Your task to perform on an android device: Empty the shopping cart on bestbuy. Image 0: 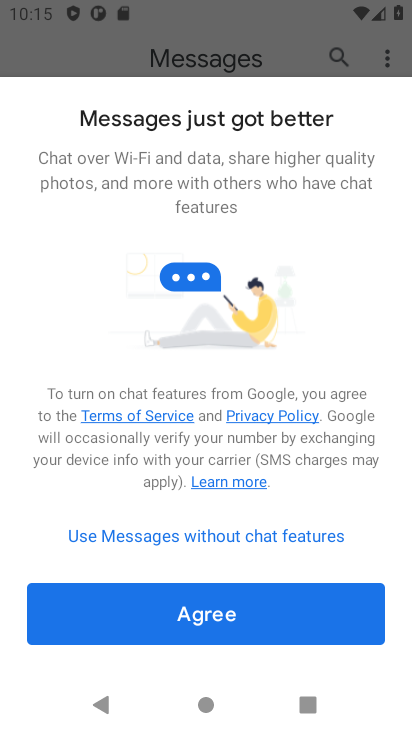
Step 0: press home button
Your task to perform on an android device: Empty the shopping cart on bestbuy. Image 1: 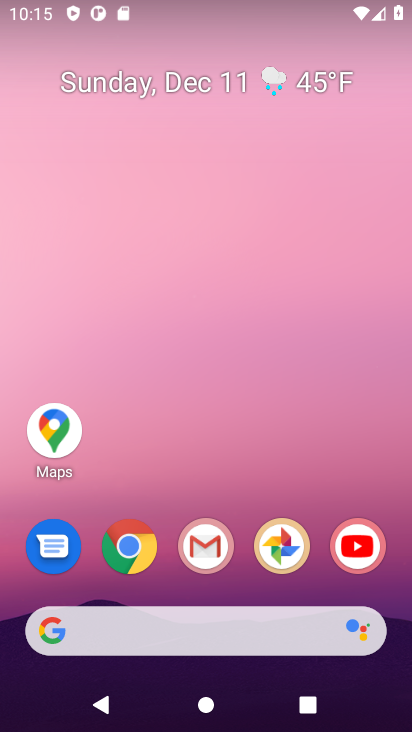
Step 1: click (126, 547)
Your task to perform on an android device: Empty the shopping cart on bestbuy. Image 2: 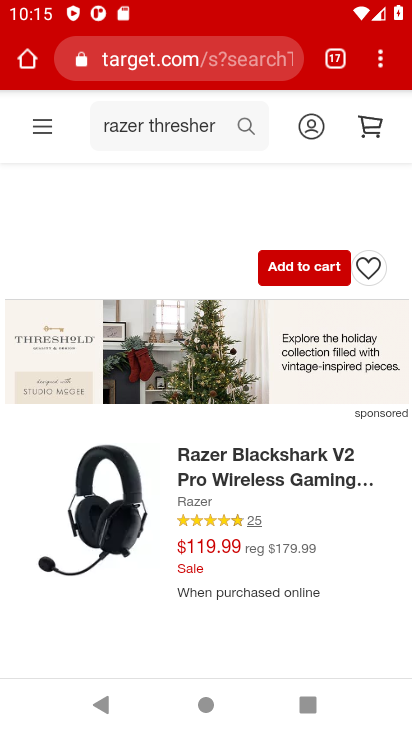
Step 2: click (164, 63)
Your task to perform on an android device: Empty the shopping cart on bestbuy. Image 3: 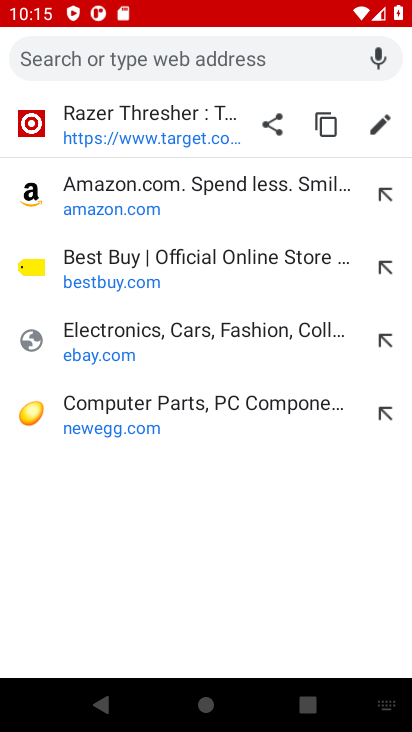
Step 3: click (96, 271)
Your task to perform on an android device: Empty the shopping cart on bestbuy. Image 4: 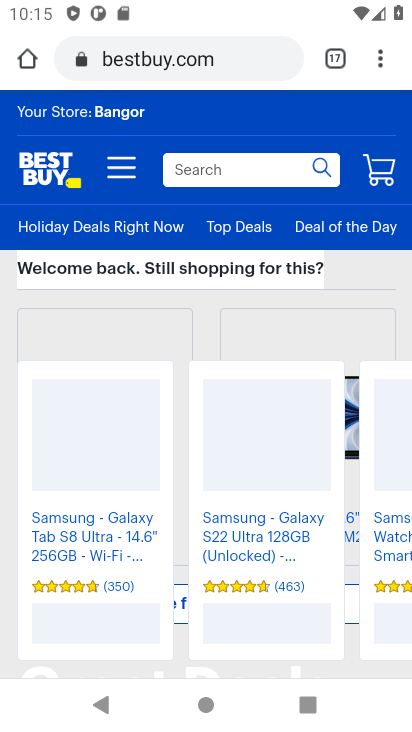
Step 4: click (379, 175)
Your task to perform on an android device: Empty the shopping cart on bestbuy. Image 5: 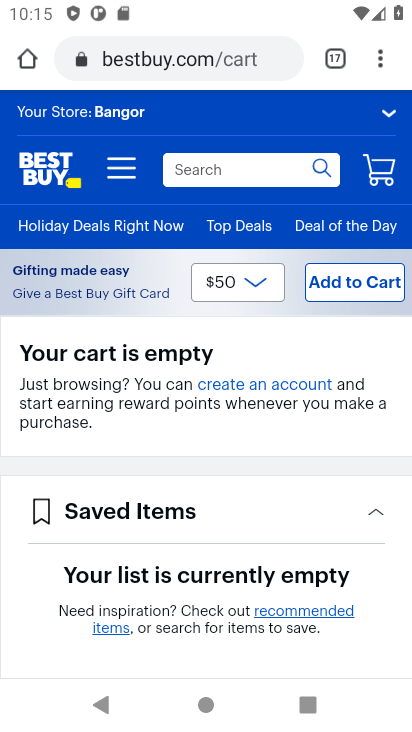
Step 5: task complete